Your task to perform on an android device: What's the weather going to be this weekend? Image 0: 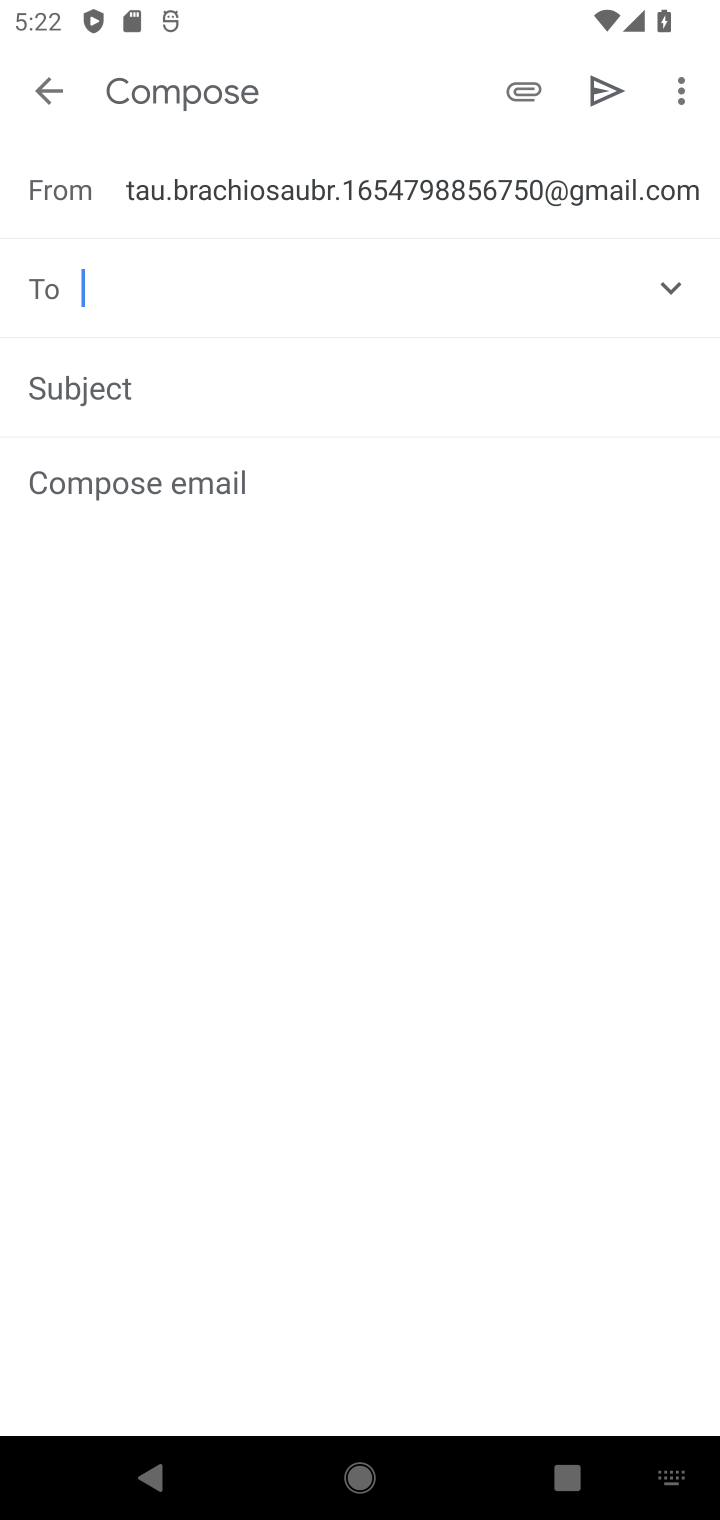
Step 0: press home button
Your task to perform on an android device: What's the weather going to be this weekend? Image 1: 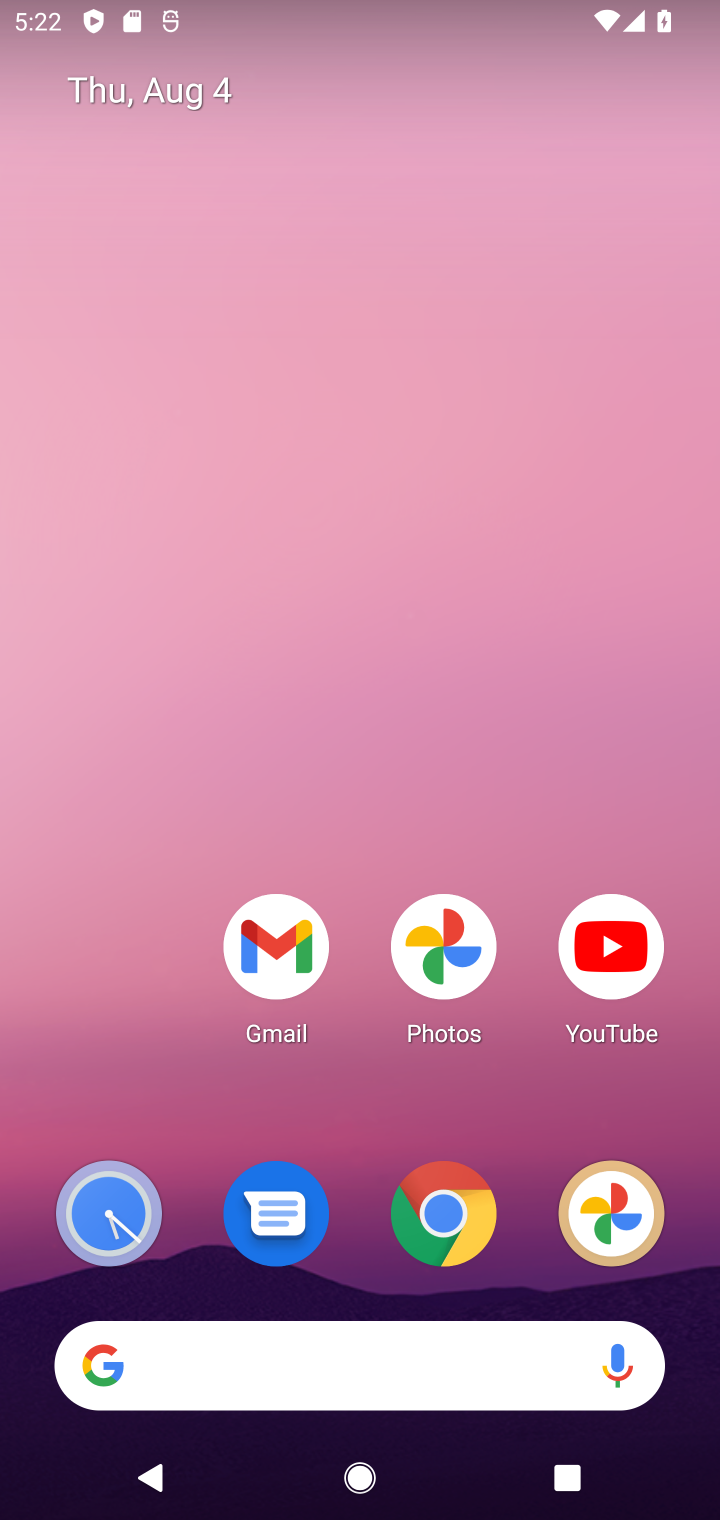
Step 1: click (345, 1382)
Your task to perform on an android device: What's the weather going to be this weekend? Image 2: 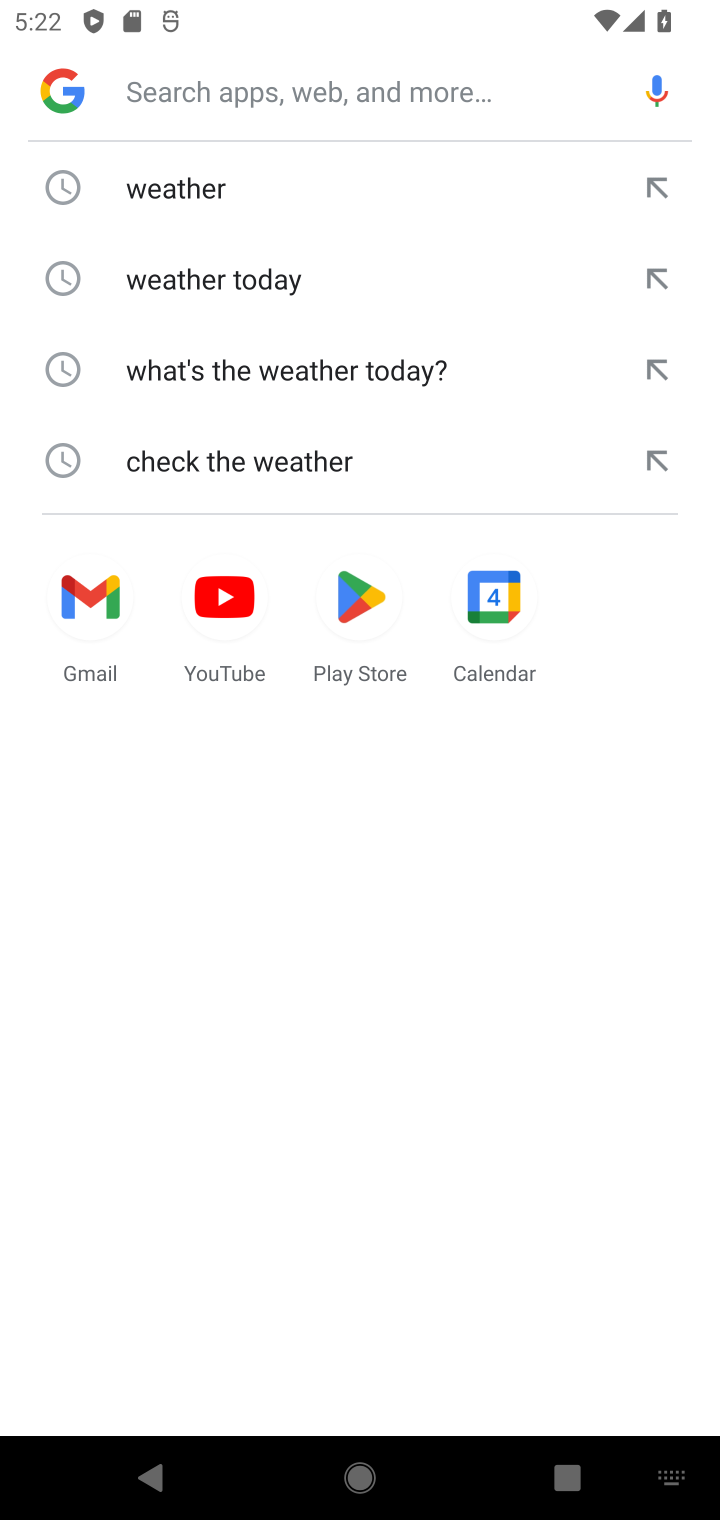
Step 2: click (153, 188)
Your task to perform on an android device: What's the weather going to be this weekend? Image 3: 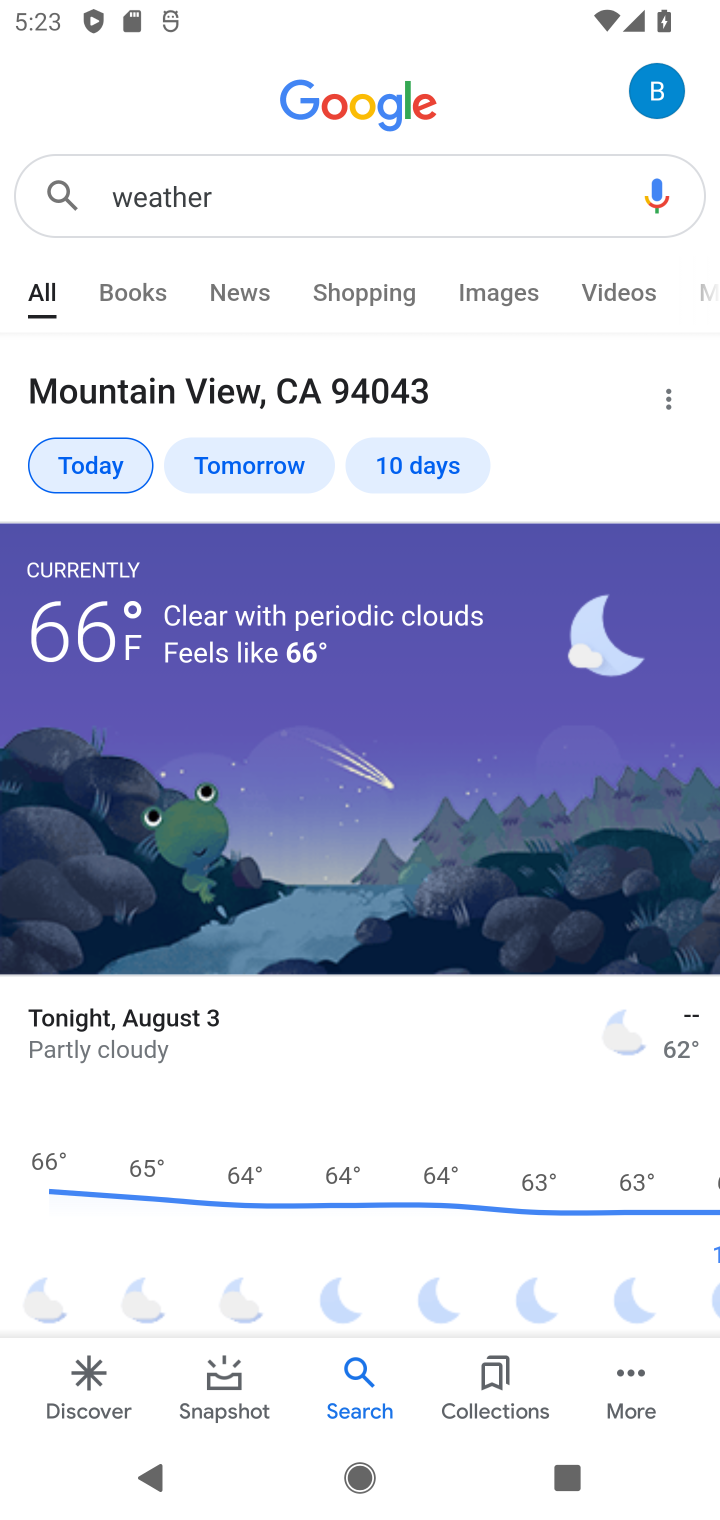
Step 3: click (424, 461)
Your task to perform on an android device: What's the weather going to be this weekend? Image 4: 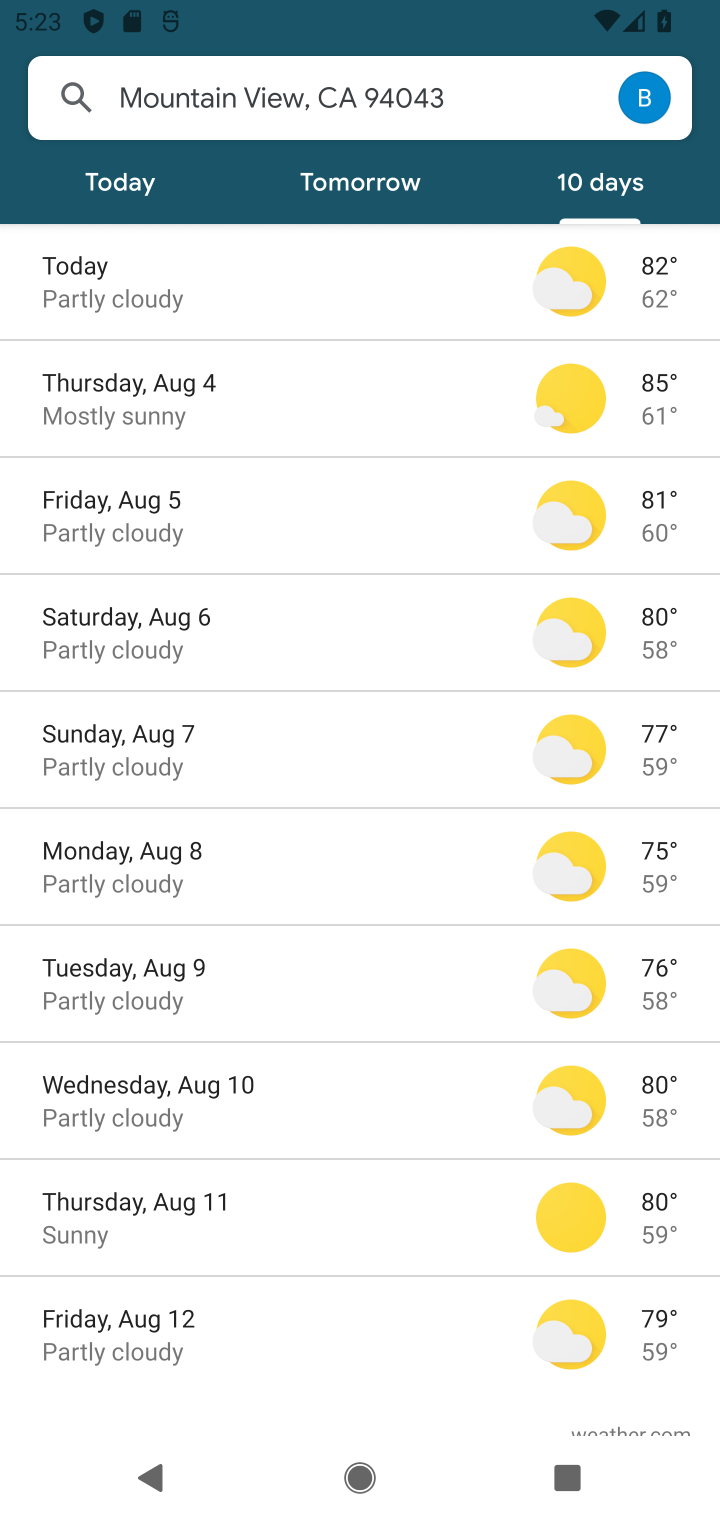
Step 4: click (231, 634)
Your task to perform on an android device: What's the weather going to be this weekend? Image 5: 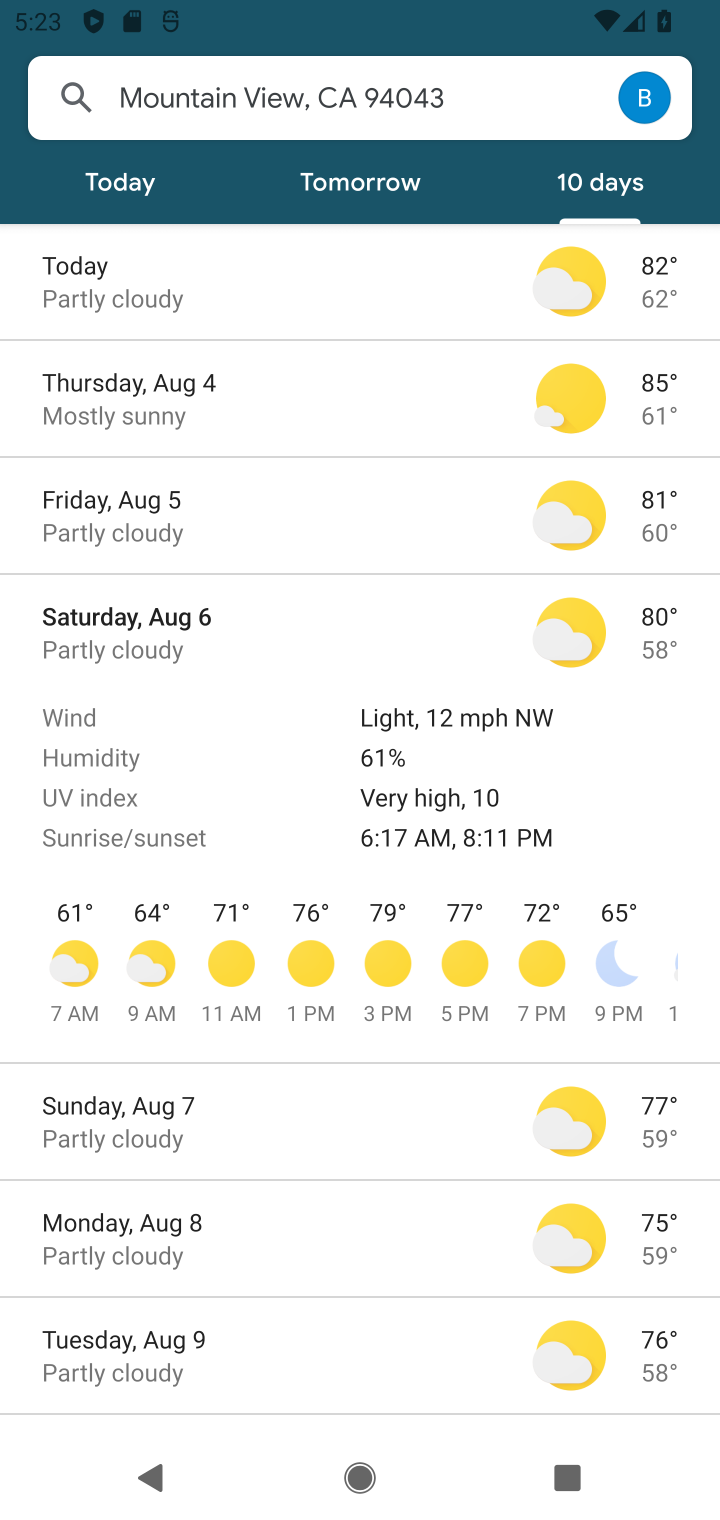
Step 5: task complete